Your task to perform on an android device: What's the weather today? Image 0: 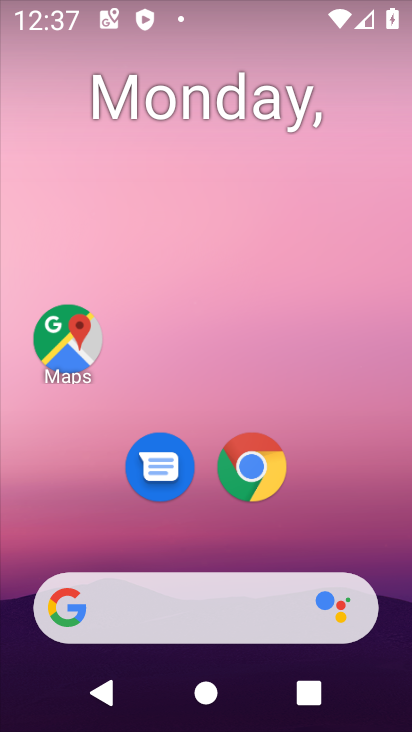
Step 0: drag from (395, 600) to (373, 75)
Your task to perform on an android device: What's the weather today? Image 1: 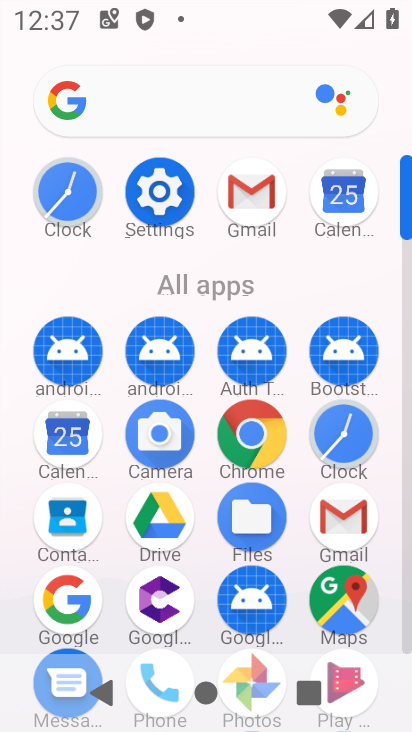
Step 1: click (181, 102)
Your task to perform on an android device: What's the weather today? Image 2: 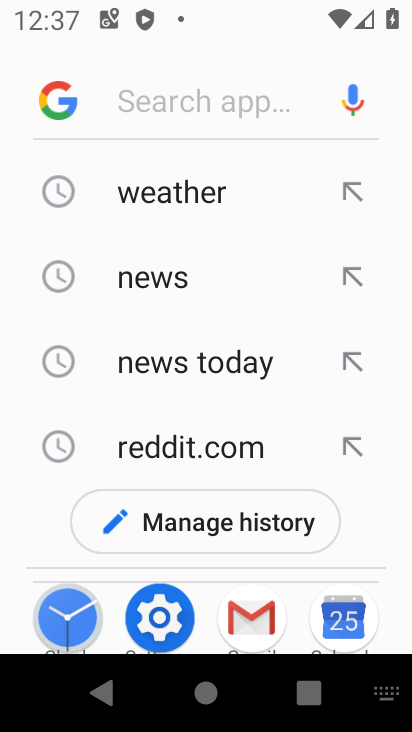
Step 2: click (164, 190)
Your task to perform on an android device: What's the weather today? Image 3: 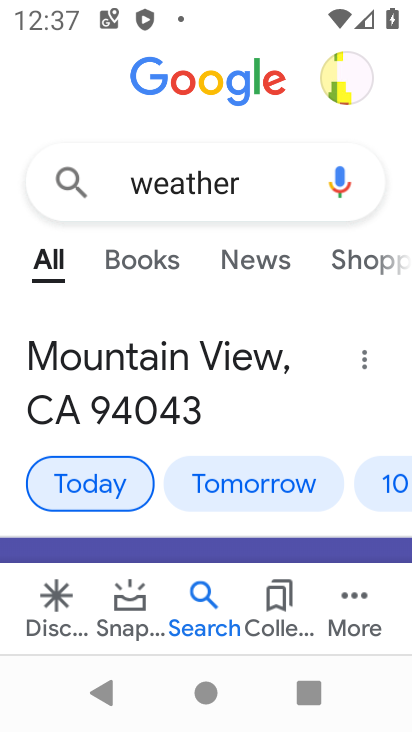
Step 3: task complete